Your task to perform on an android device: turn on location history Image 0: 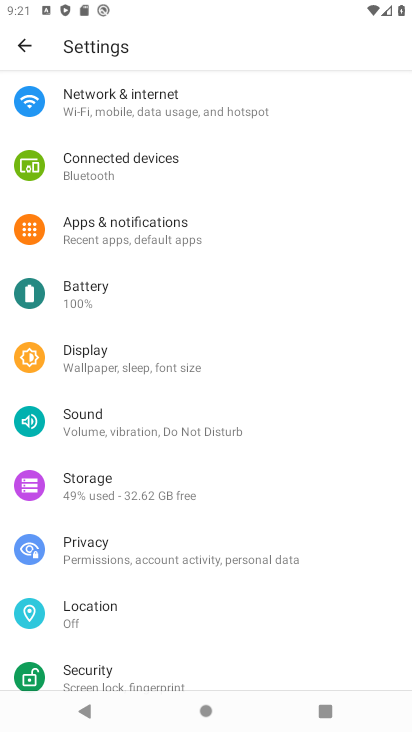
Step 0: press home button
Your task to perform on an android device: turn on location history Image 1: 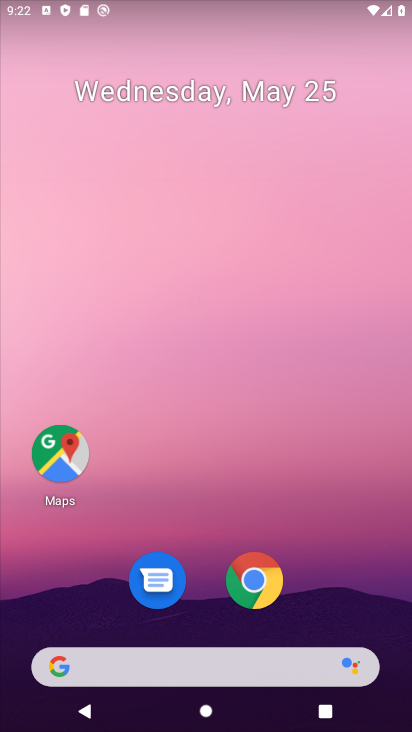
Step 1: drag from (46, 590) to (370, 107)
Your task to perform on an android device: turn on location history Image 2: 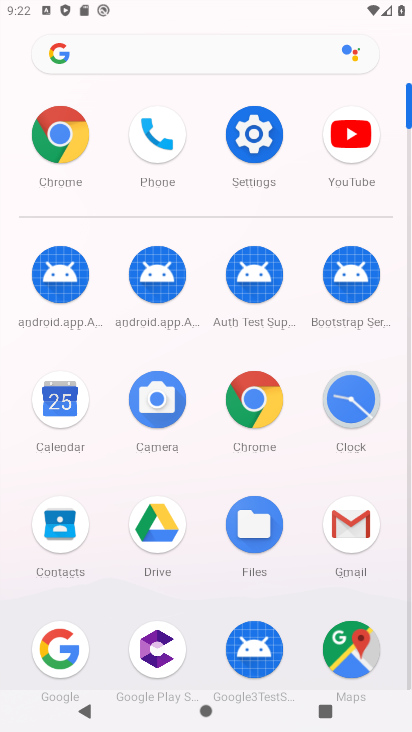
Step 2: click (246, 137)
Your task to perform on an android device: turn on location history Image 3: 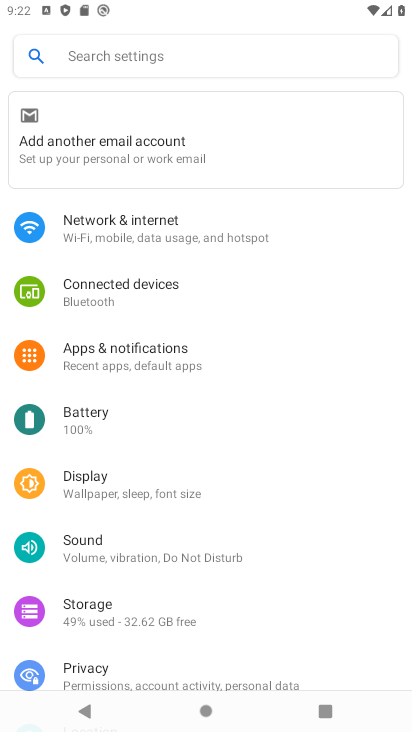
Step 3: drag from (96, 638) to (303, 148)
Your task to perform on an android device: turn on location history Image 4: 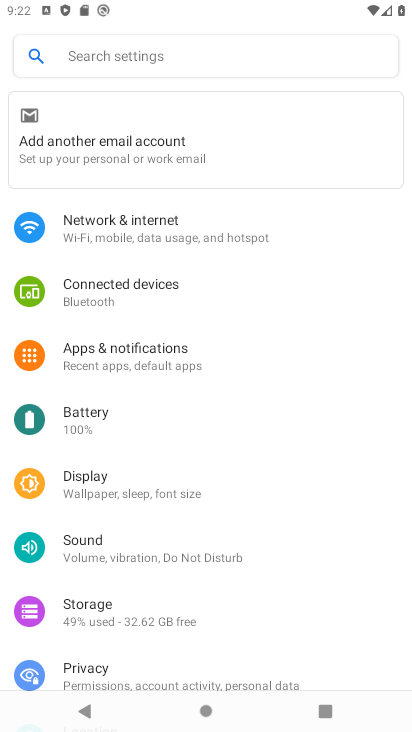
Step 4: drag from (83, 370) to (217, 139)
Your task to perform on an android device: turn on location history Image 5: 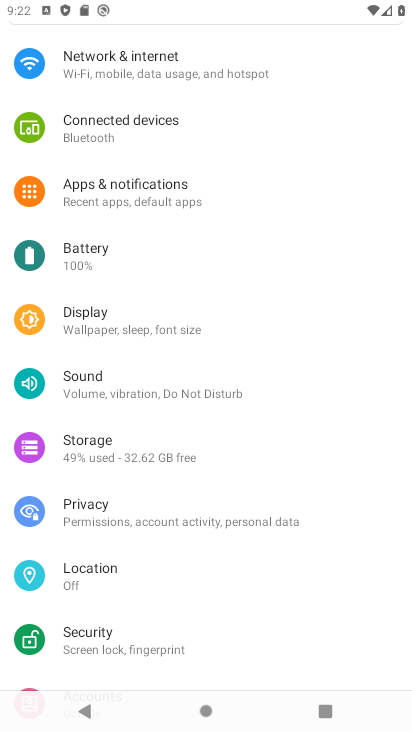
Step 5: click (86, 570)
Your task to perform on an android device: turn on location history Image 6: 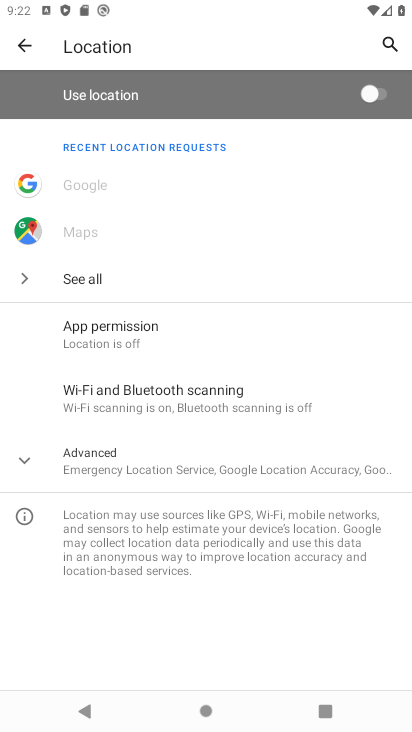
Step 6: click (166, 464)
Your task to perform on an android device: turn on location history Image 7: 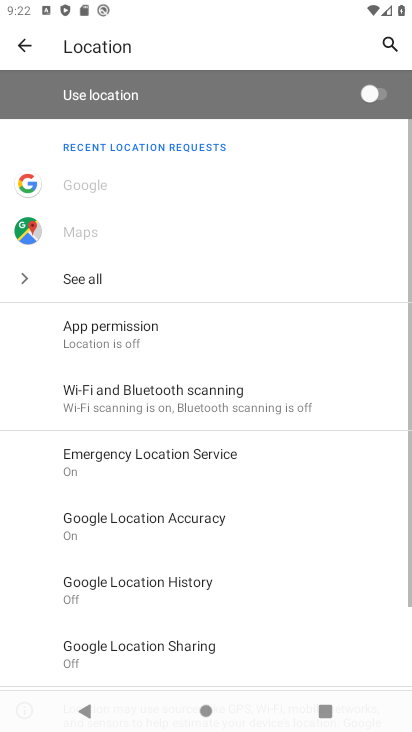
Step 7: click (113, 580)
Your task to perform on an android device: turn on location history Image 8: 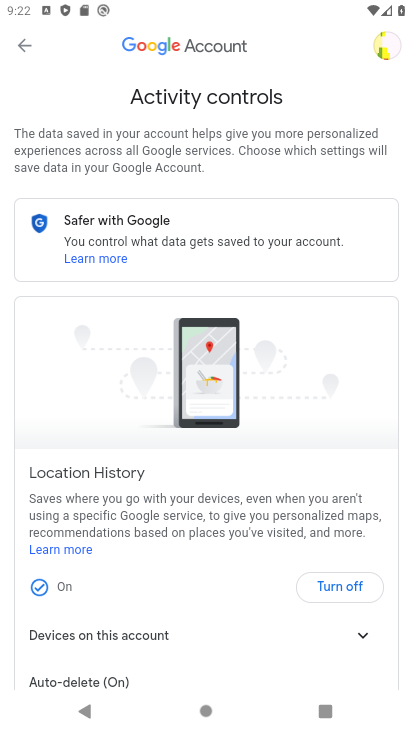
Step 8: task complete